Your task to perform on an android device: Open Google Image 0: 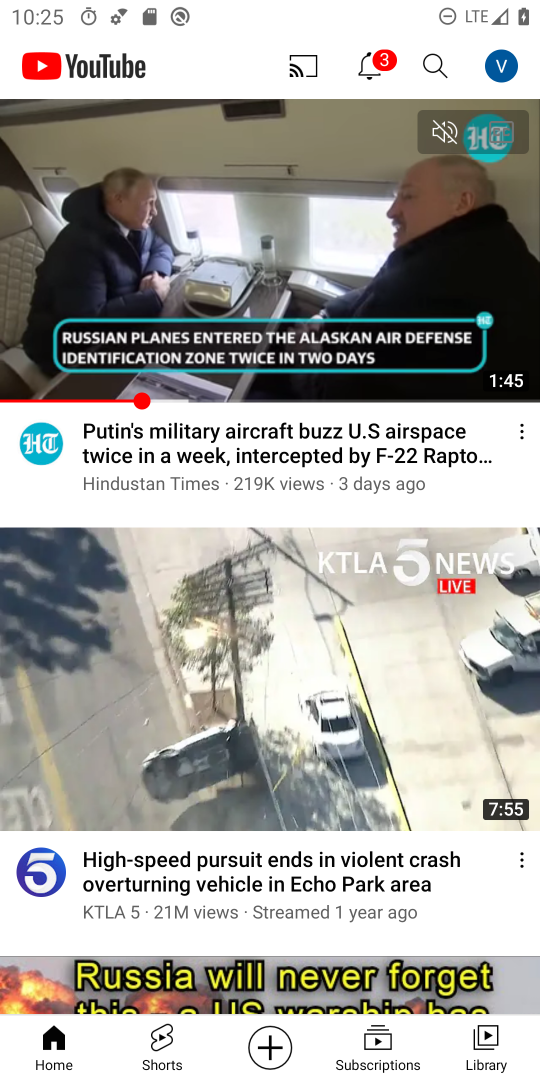
Step 0: press home button
Your task to perform on an android device: Open Google Image 1: 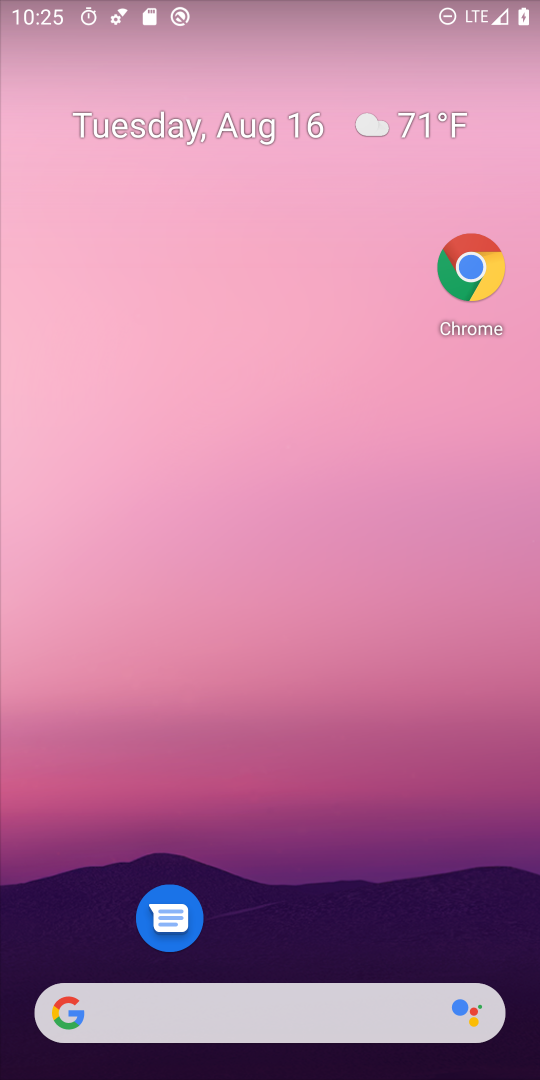
Step 1: drag from (385, 949) to (430, 368)
Your task to perform on an android device: Open Google Image 2: 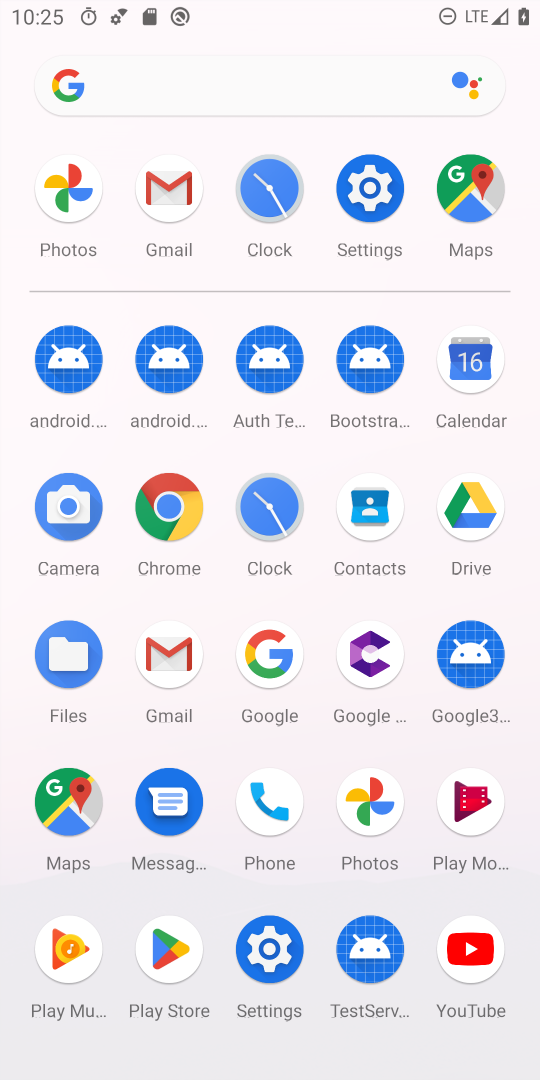
Step 2: click (259, 666)
Your task to perform on an android device: Open Google Image 3: 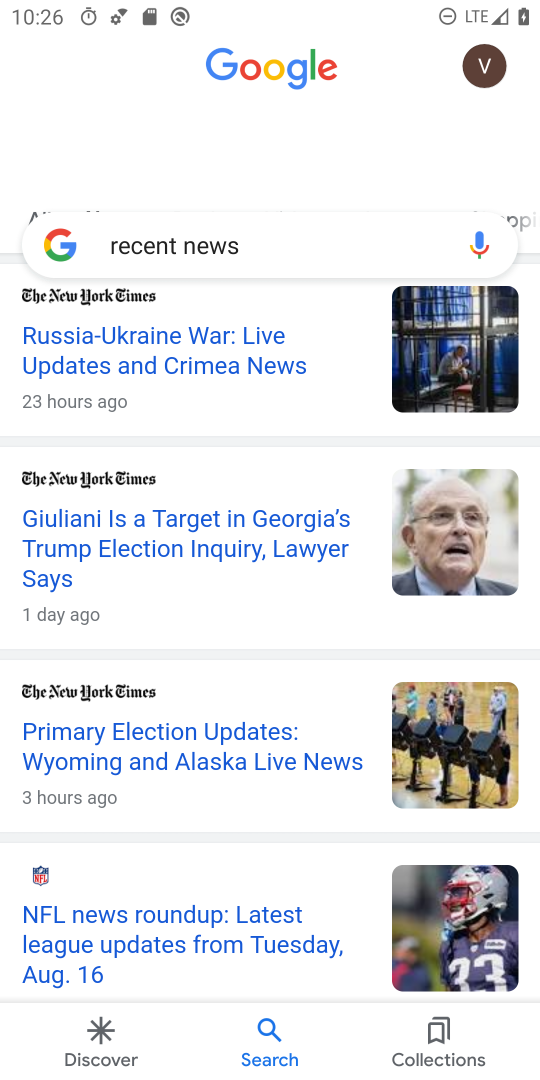
Step 3: task complete